Your task to perform on an android device: Turn off the flashlight Image 0: 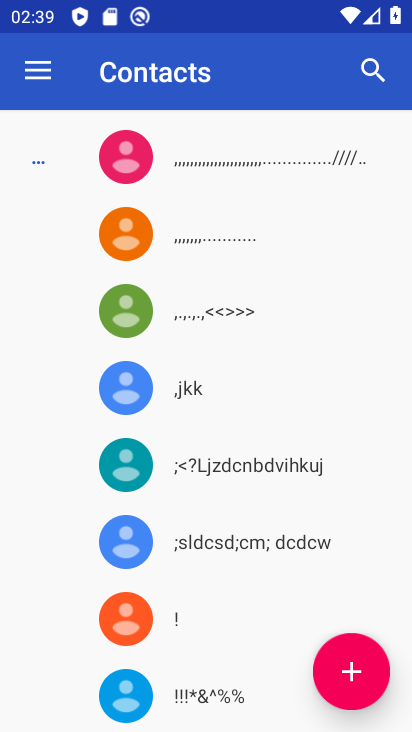
Step 0: press home button
Your task to perform on an android device: Turn off the flashlight Image 1: 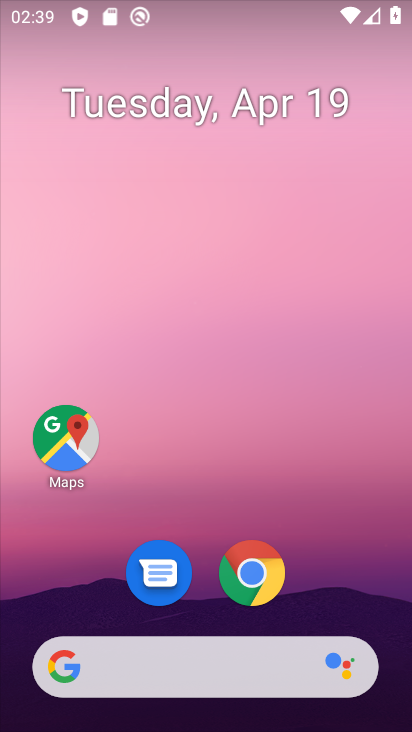
Step 1: task complete